Your task to perform on an android device: turn on improve location accuracy Image 0: 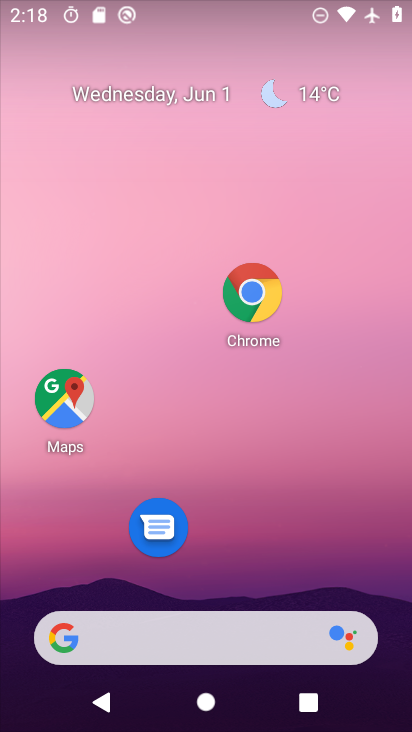
Step 0: drag from (254, 573) to (221, 314)
Your task to perform on an android device: turn on improve location accuracy Image 1: 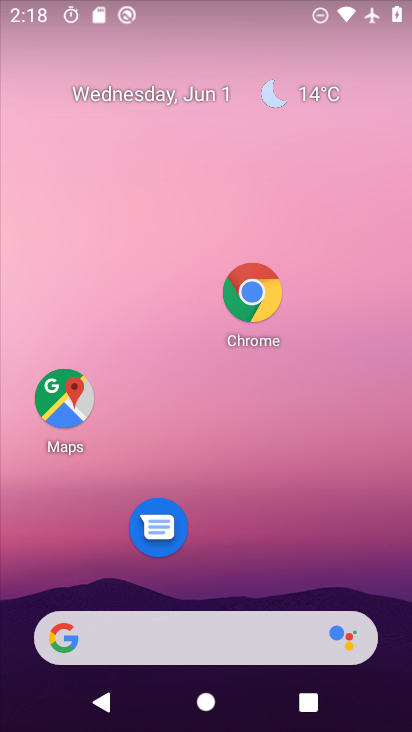
Step 1: drag from (185, 654) to (234, 186)
Your task to perform on an android device: turn on improve location accuracy Image 2: 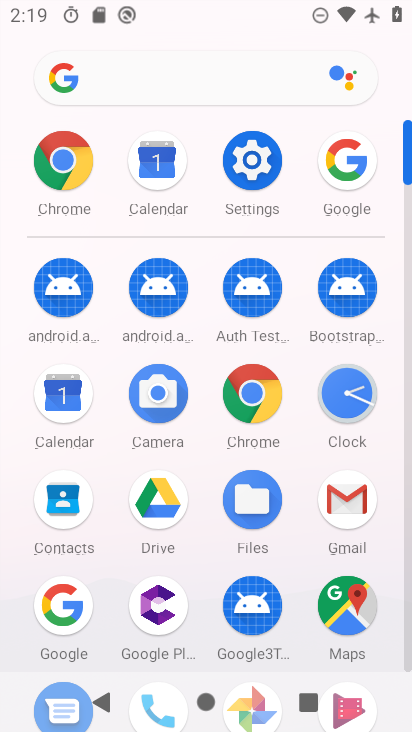
Step 2: click (257, 178)
Your task to perform on an android device: turn on improve location accuracy Image 3: 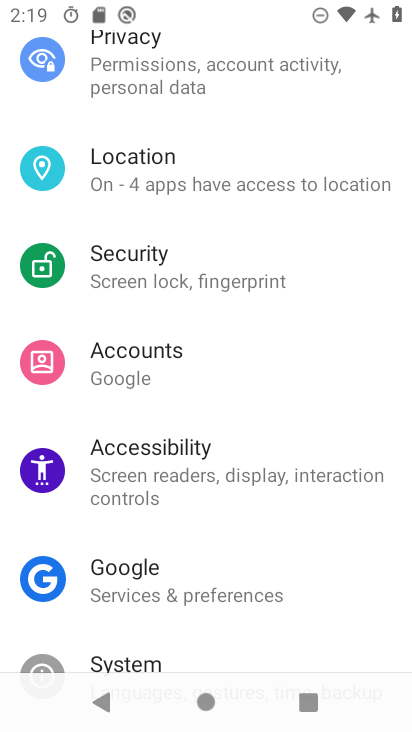
Step 3: click (219, 196)
Your task to perform on an android device: turn on improve location accuracy Image 4: 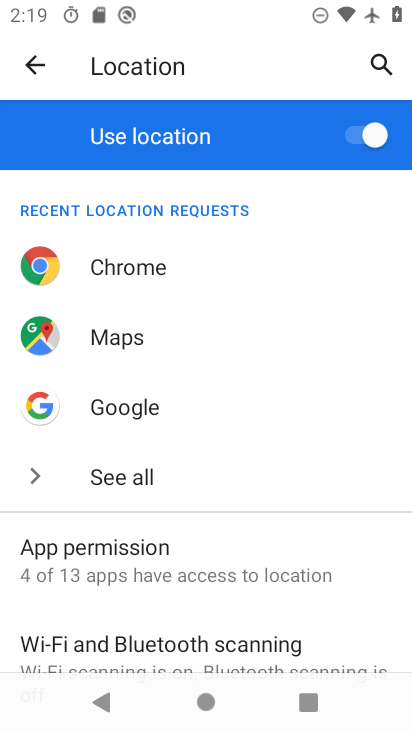
Step 4: drag from (122, 524) to (190, 147)
Your task to perform on an android device: turn on improve location accuracy Image 5: 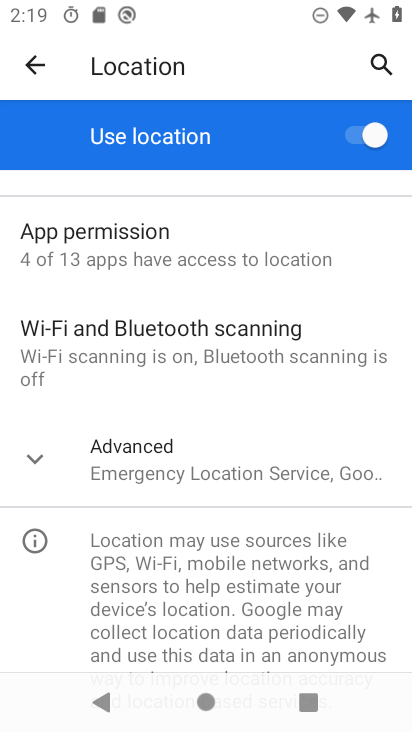
Step 5: click (119, 464)
Your task to perform on an android device: turn on improve location accuracy Image 6: 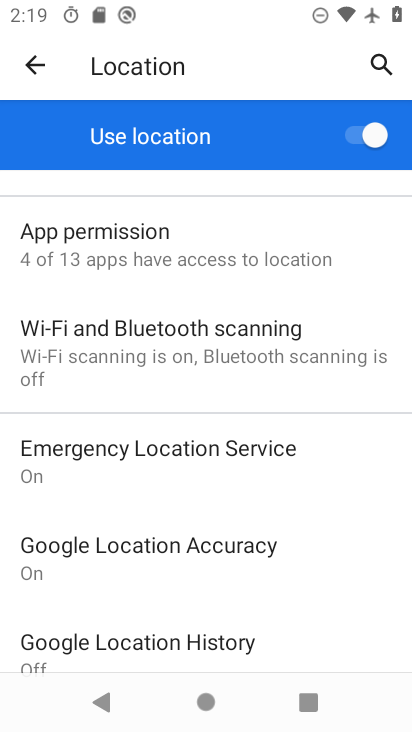
Step 6: click (164, 557)
Your task to perform on an android device: turn on improve location accuracy Image 7: 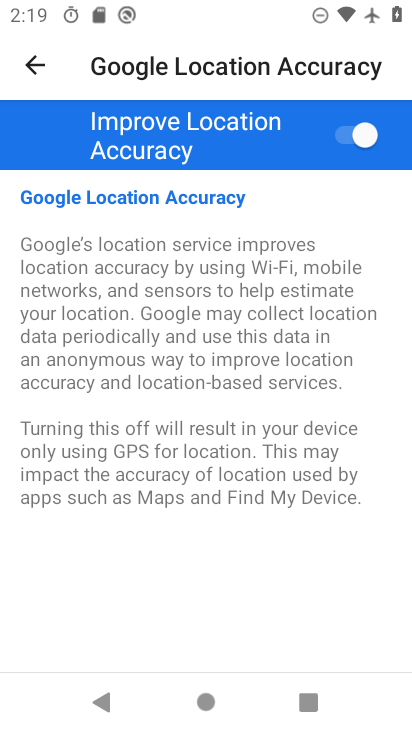
Step 7: task complete